Your task to perform on an android device: Open Youtube and go to "Your channel" Image 0: 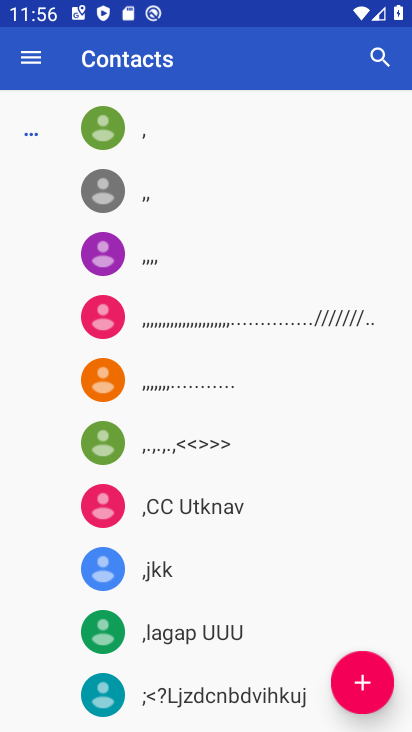
Step 0: press home button
Your task to perform on an android device: Open Youtube and go to "Your channel" Image 1: 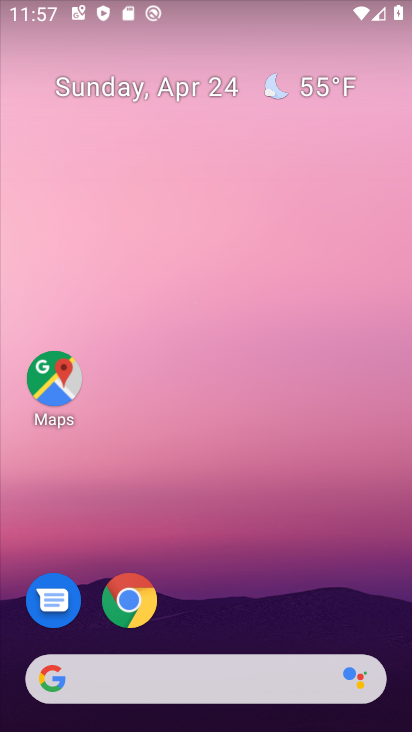
Step 1: drag from (225, 596) to (200, 147)
Your task to perform on an android device: Open Youtube and go to "Your channel" Image 2: 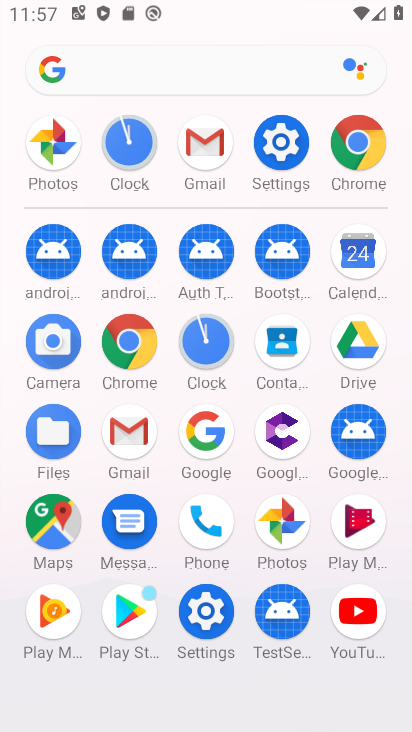
Step 2: click (365, 603)
Your task to perform on an android device: Open Youtube and go to "Your channel" Image 3: 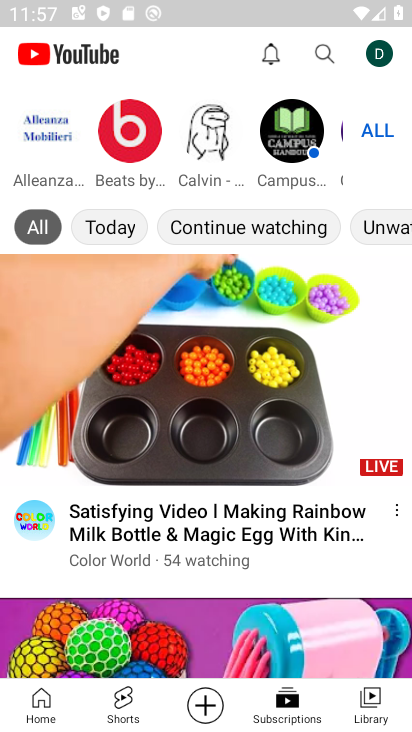
Step 3: click (327, 61)
Your task to perform on an android device: Open Youtube and go to "Your channel" Image 4: 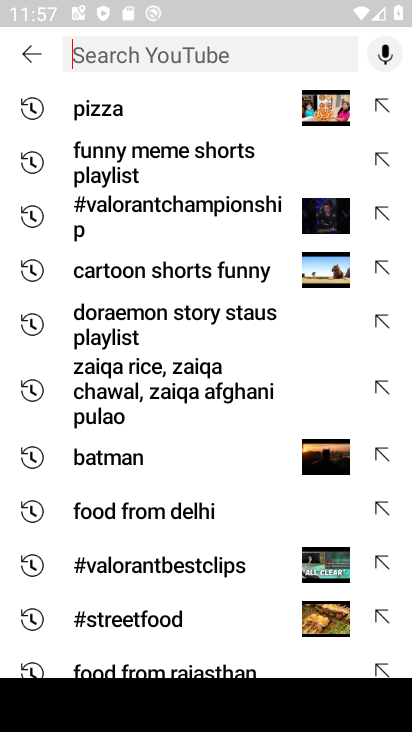
Step 4: type "your channel"
Your task to perform on an android device: Open Youtube and go to "Your channel" Image 5: 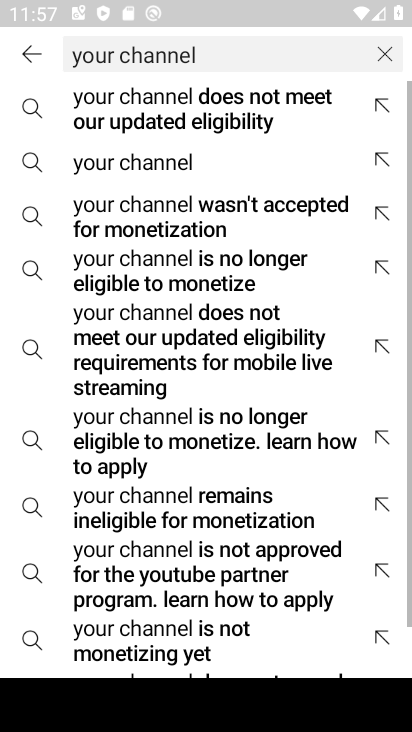
Step 5: click (140, 168)
Your task to perform on an android device: Open Youtube and go to "Your channel" Image 6: 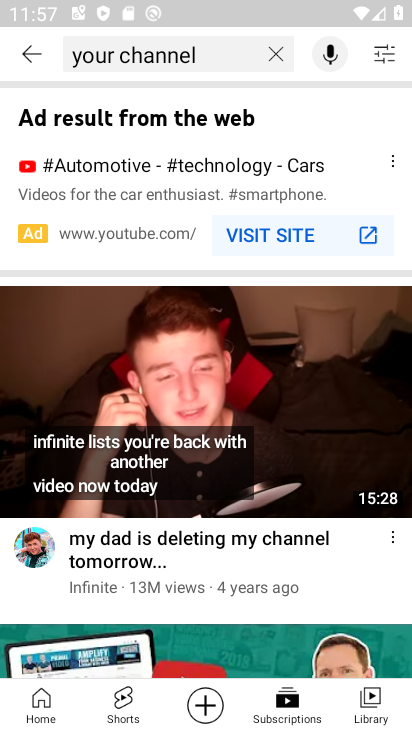
Step 6: task complete